Your task to perform on an android device: empty trash in the gmail app Image 0: 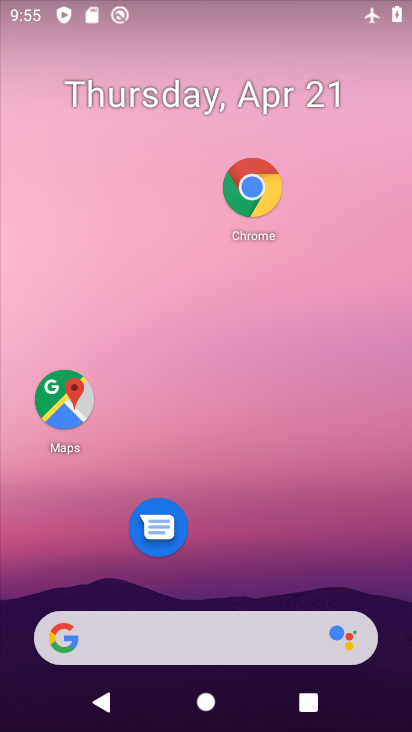
Step 0: drag from (311, 551) to (408, 76)
Your task to perform on an android device: empty trash in the gmail app Image 1: 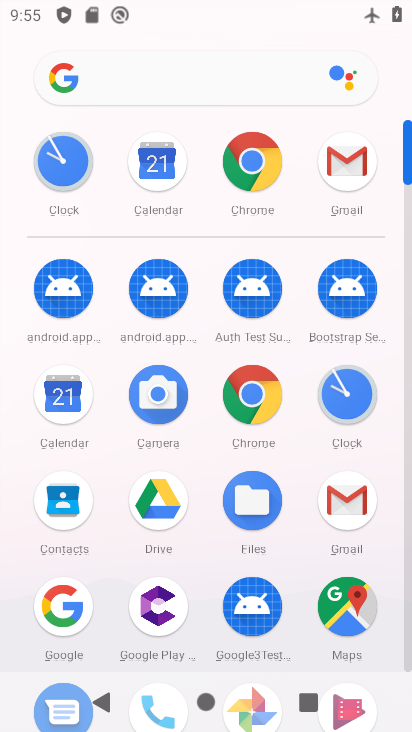
Step 1: click (352, 520)
Your task to perform on an android device: empty trash in the gmail app Image 2: 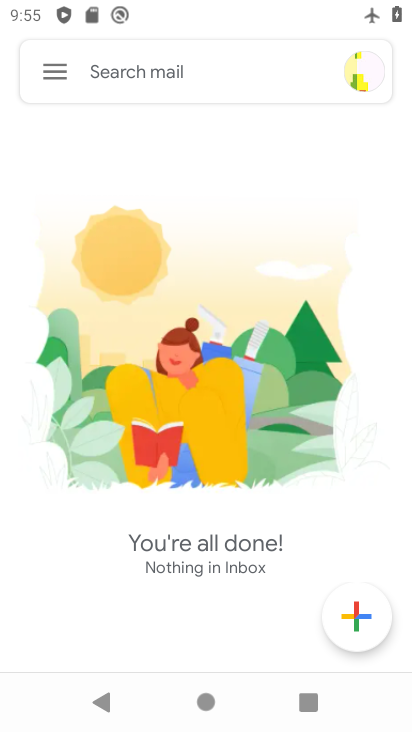
Step 2: click (62, 76)
Your task to perform on an android device: empty trash in the gmail app Image 3: 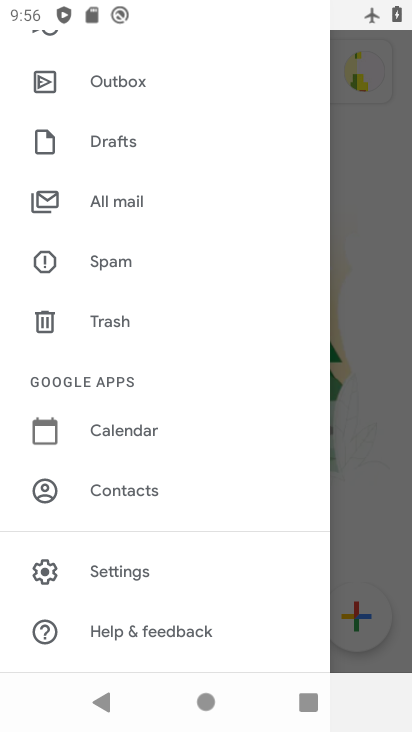
Step 3: click (132, 331)
Your task to perform on an android device: empty trash in the gmail app Image 4: 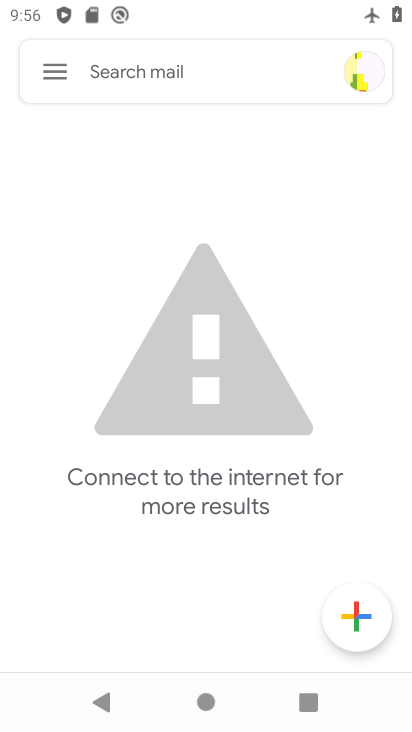
Step 4: task complete